Your task to perform on an android device: turn on wifi Image 0: 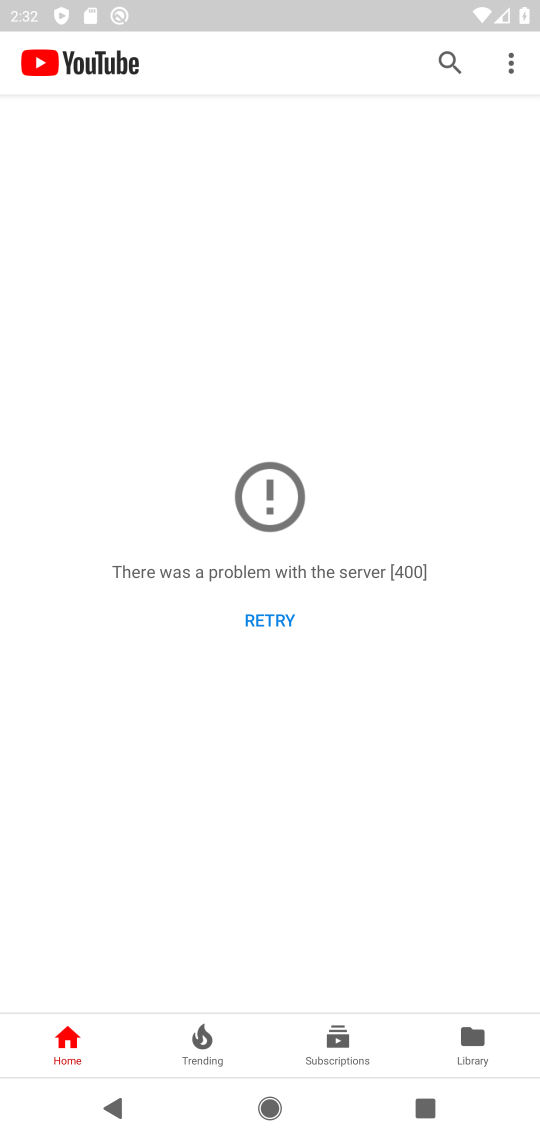
Step 0: press home button
Your task to perform on an android device: turn on wifi Image 1: 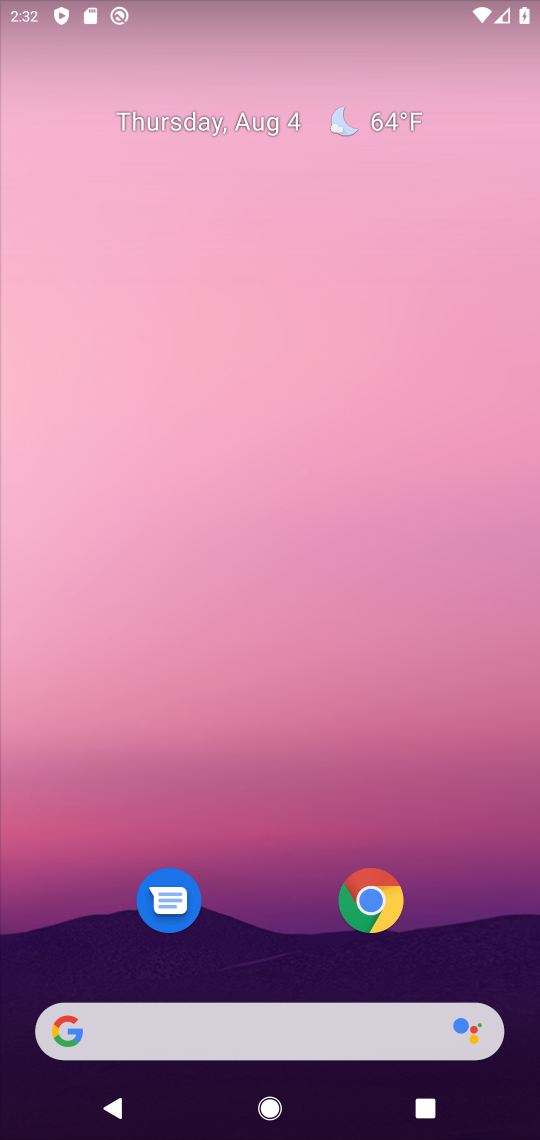
Step 1: drag from (510, 937) to (317, 199)
Your task to perform on an android device: turn on wifi Image 2: 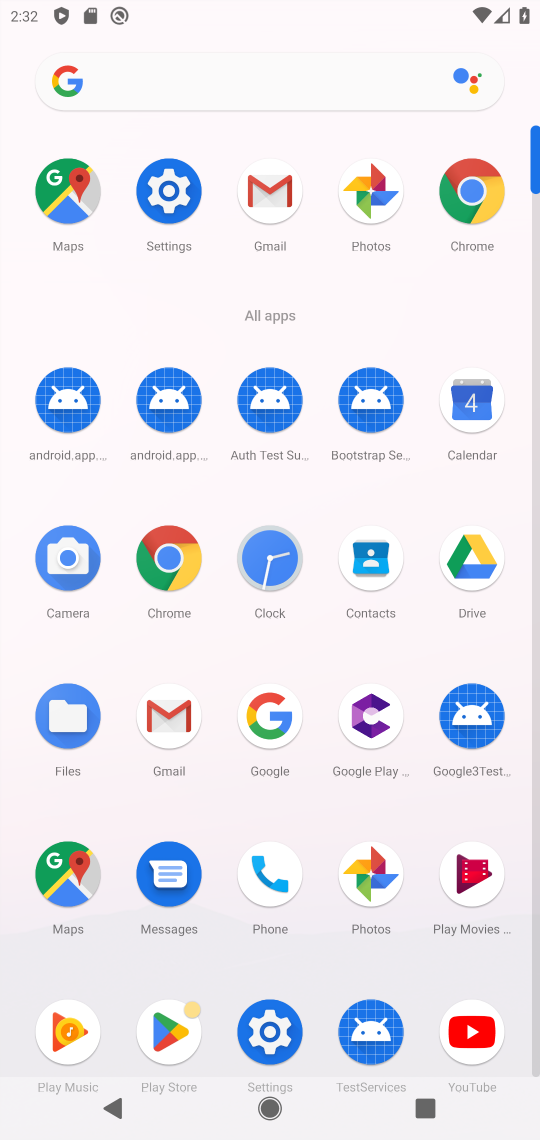
Step 2: click (180, 194)
Your task to perform on an android device: turn on wifi Image 3: 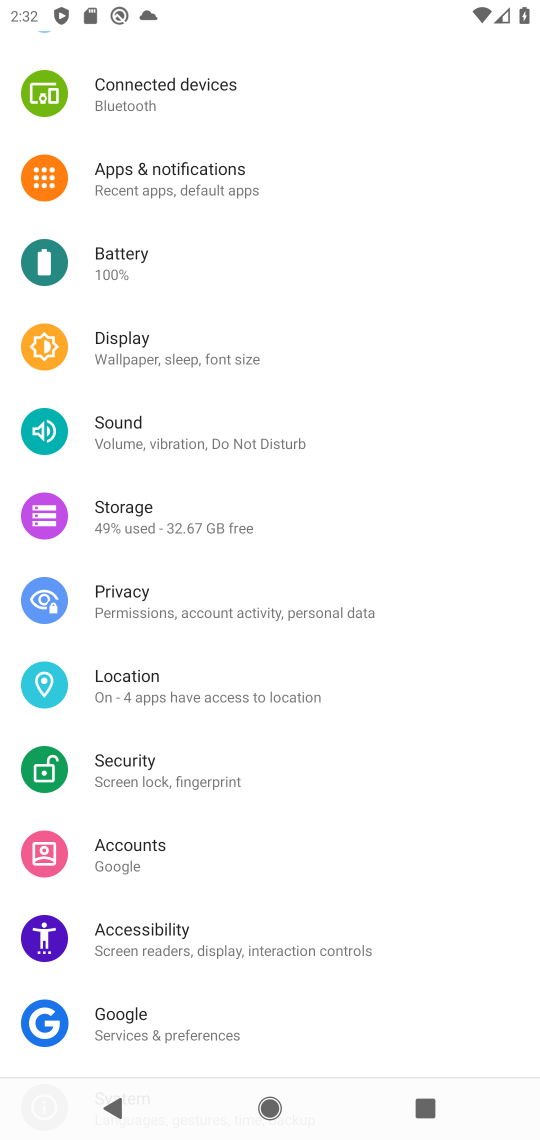
Step 3: drag from (213, 157) to (464, 1102)
Your task to perform on an android device: turn on wifi Image 4: 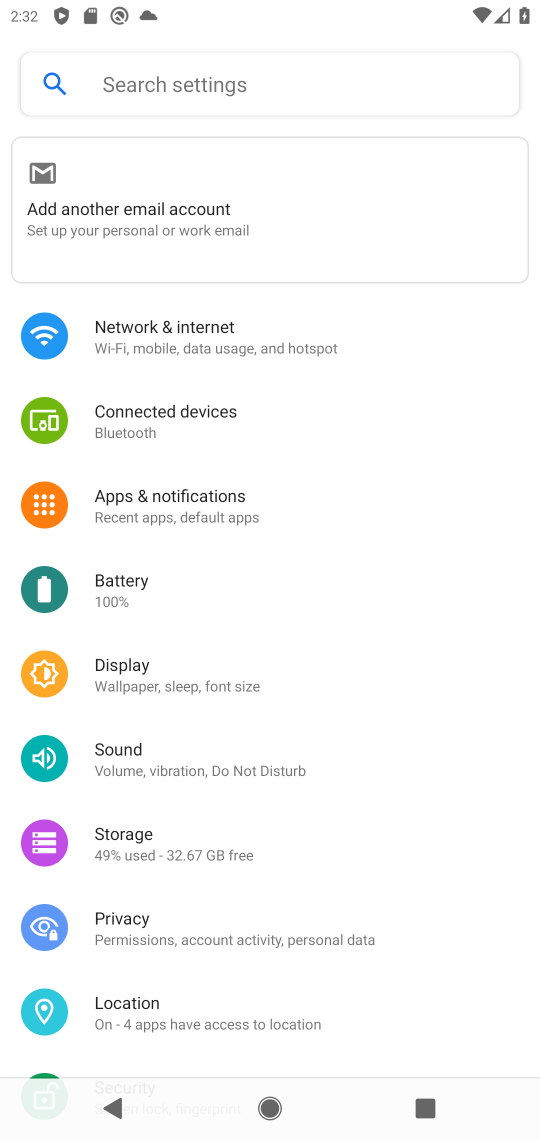
Step 4: click (152, 296)
Your task to perform on an android device: turn on wifi Image 5: 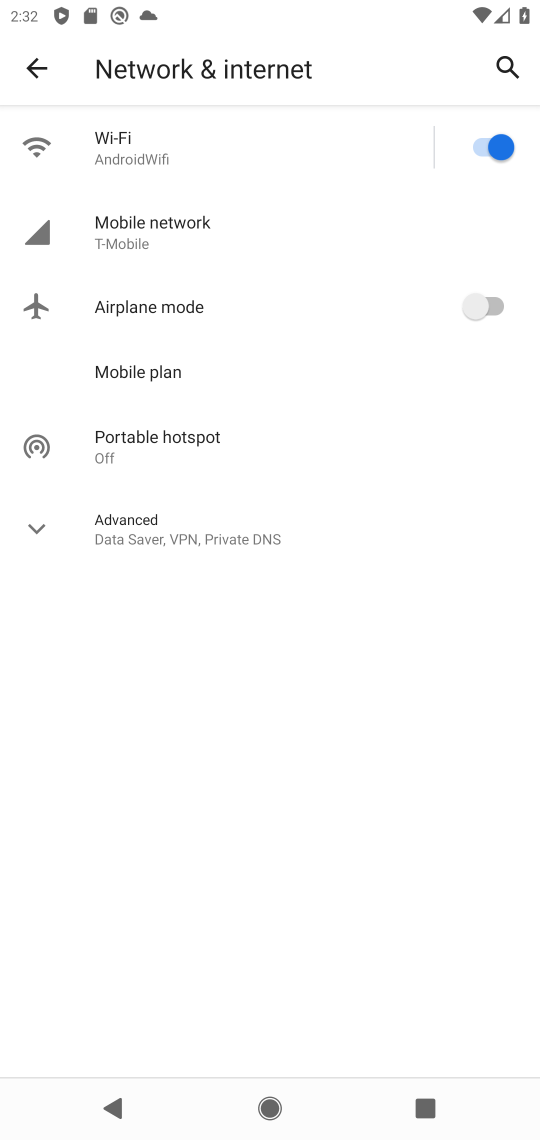
Step 5: task complete